Your task to perform on an android device: clear all cookies in the chrome app Image 0: 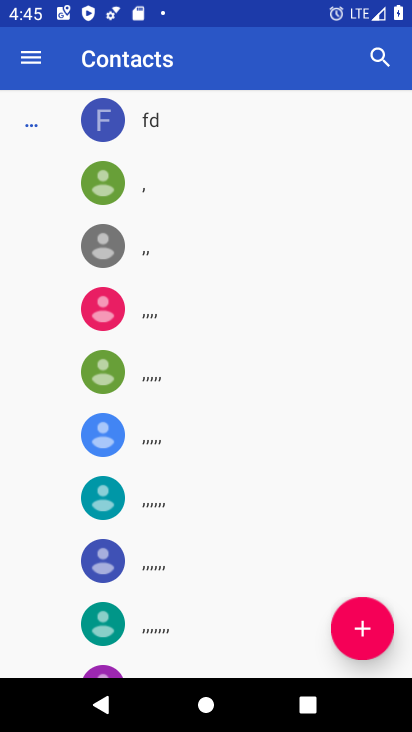
Step 0: press back button
Your task to perform on an android device: clear all cookies in the chrome app Image 1: 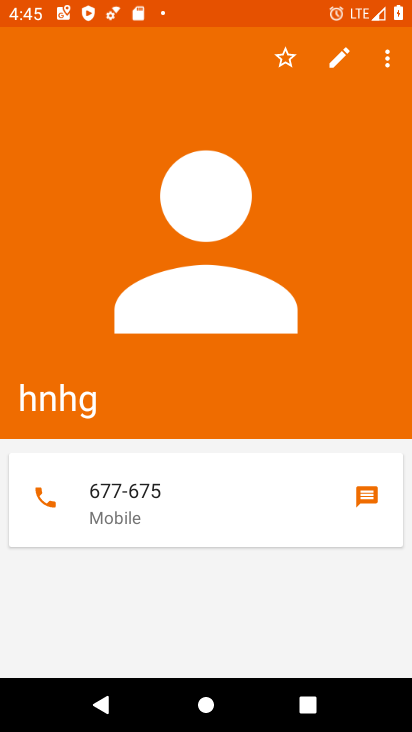
Step 1: press home button
Your task to perform on an android device: clear all cookies in the chrome app Image 2: 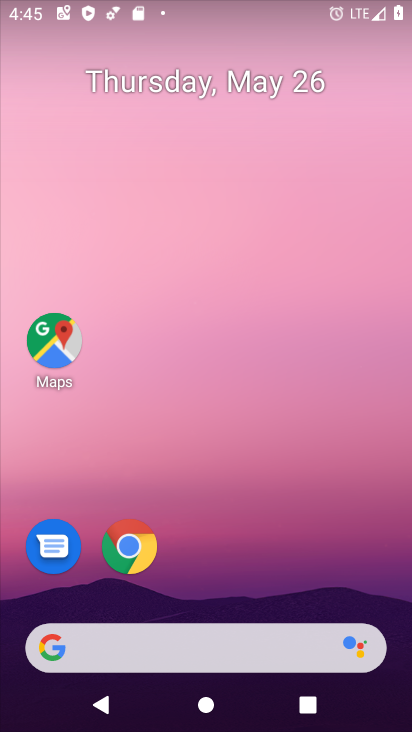
Step 2: click (114, 541)
Your task to perform on an android device: clear all cookies in the chrome app Image 3: 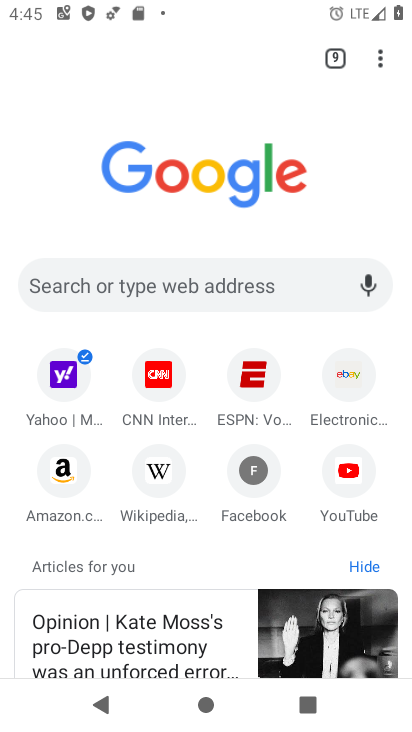
Step 3: drag from (387, 53) to (196, 334)
Your task to perform on an android device: clear all cookies in the chrome app Image 4: 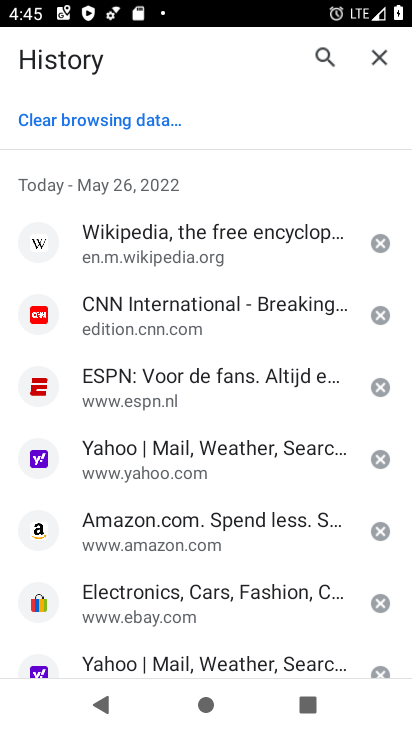
Step 4: click (87, 107)
Your task to perform on an android device: clear all cookies in the chrome app Image 5: 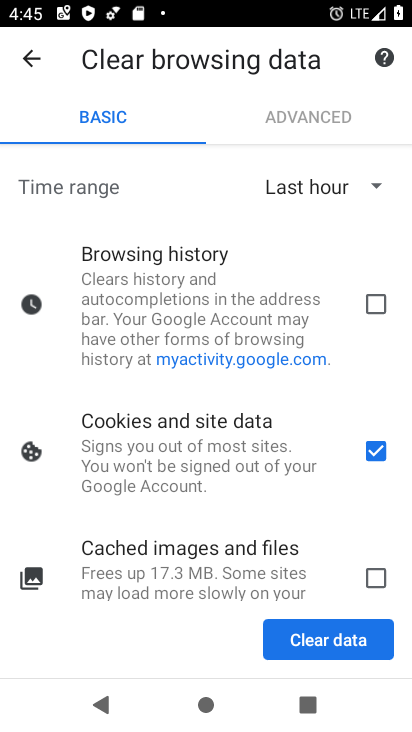
Step 5: click (320, 638)
Your task to perform on an android device: clear all cookies in the chrome app Image 6: 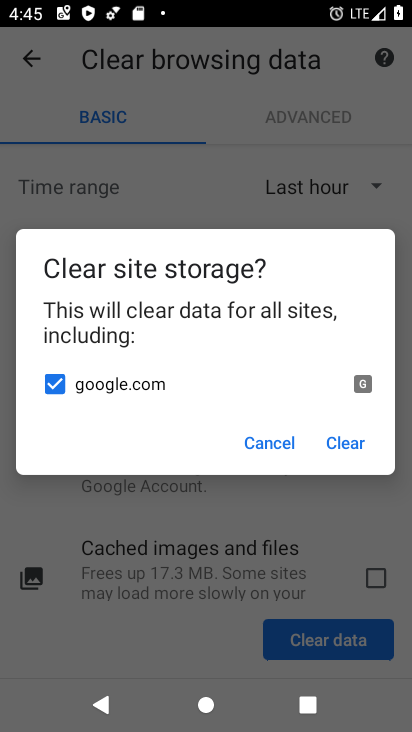
Step 6: click (330, 437)
Your task to perform on an android device: clear all cookies in the chrome app Image 7: 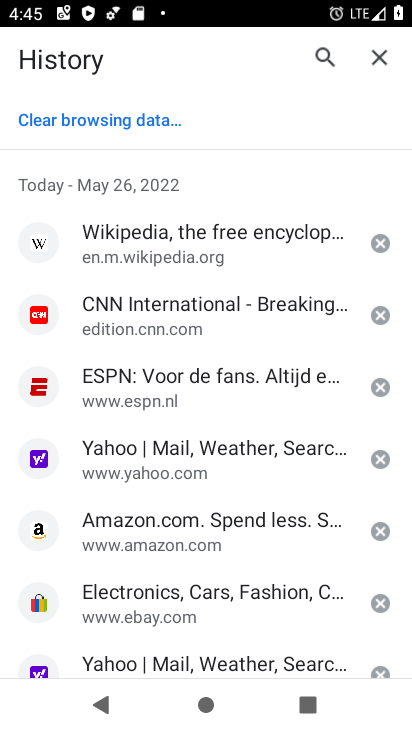
Step 7: task complete